Your task to perform on an android device: Go to network settings Image 0: 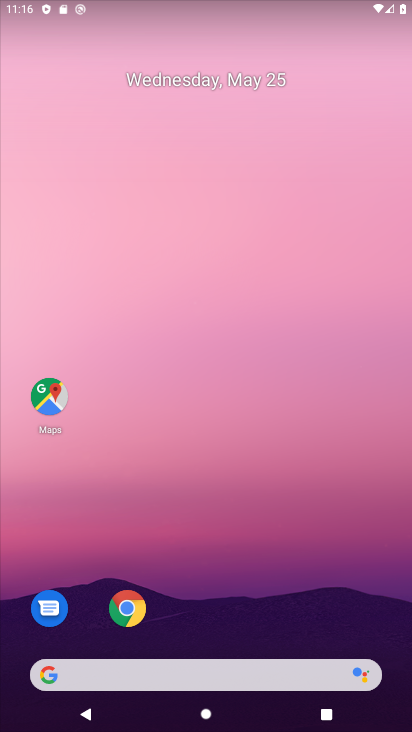
Step 0: drag from (131, 36) to (137, 501)
Your task to perform on an android device: Go to network settings Image 1: 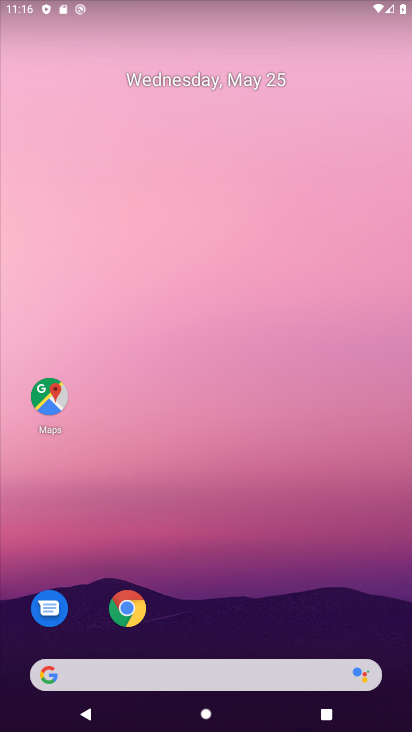
Step 1: drag from (274, 60) to (232, 404)
Your task to perform on an android device: Go to network settings Image 2: 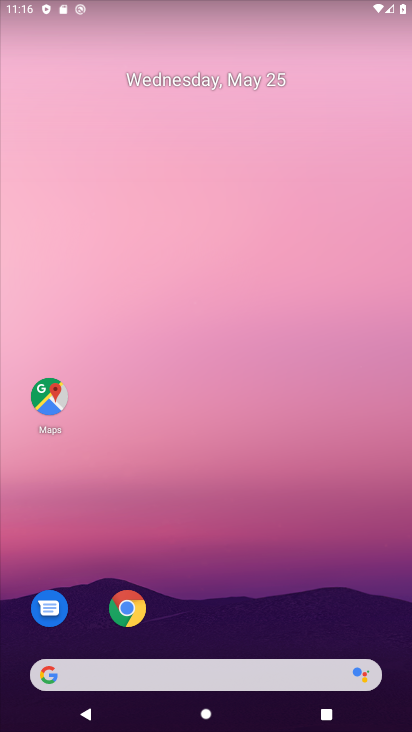
Step 2: drag from (241, 16) to (163, 494)
Your task to perform on an android device: Go to network settings Image 3: 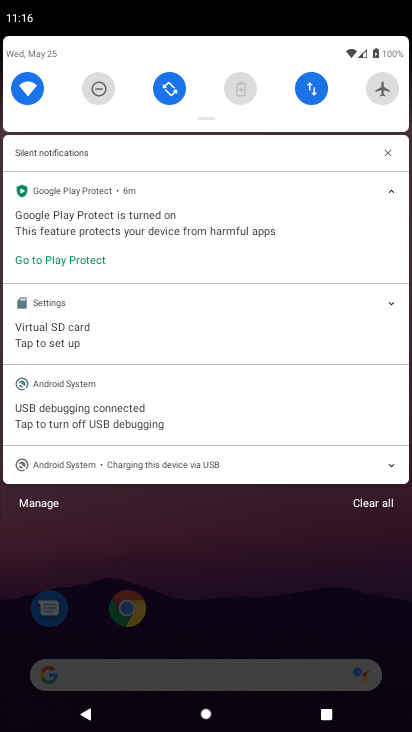
Step 3: click (316, 74)
Your task to perform on an android device: Go to network settings Image 4: 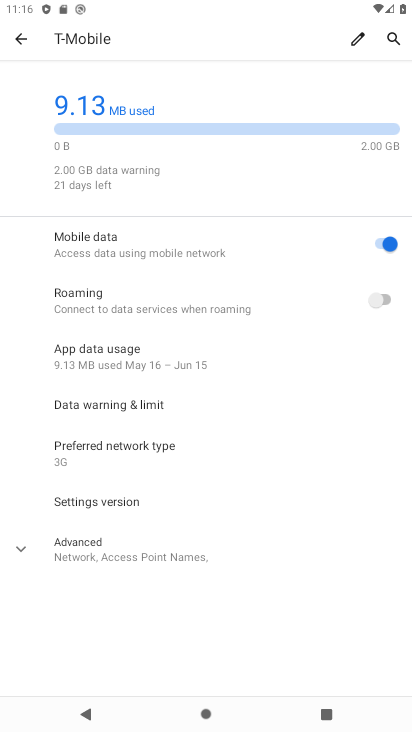
Step 4: task complete